Your task to perform on an android device: turn pop-ups on in chrome Image 0: 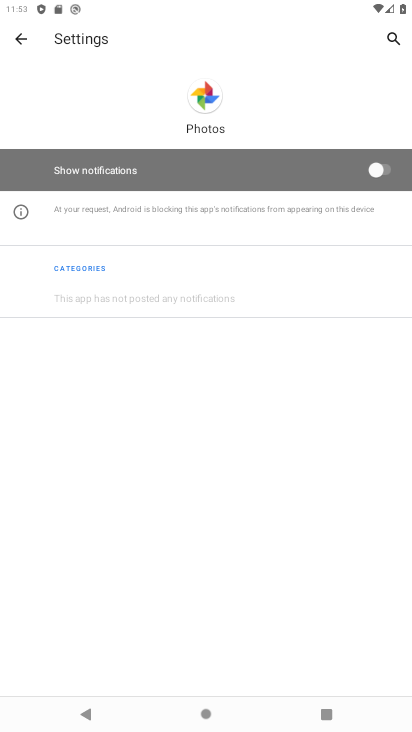
Step 0: press home button
Your task to perform on an android device: turn pop-ups on in chrome Image 1: 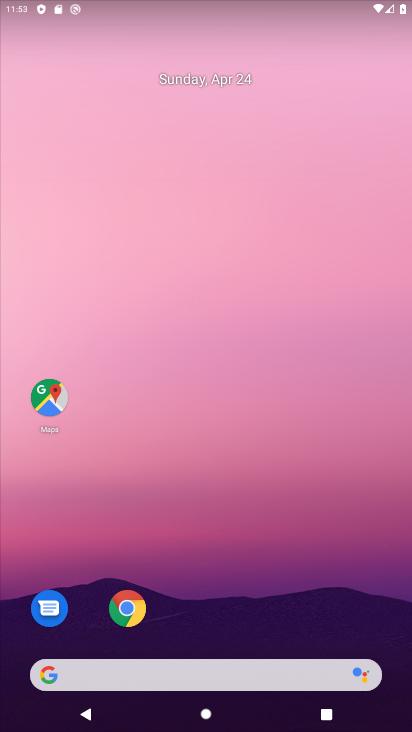
Step 1: click (124, 606)
Your task to perform on an android device: turn pop-ups on in chrome Image 2: 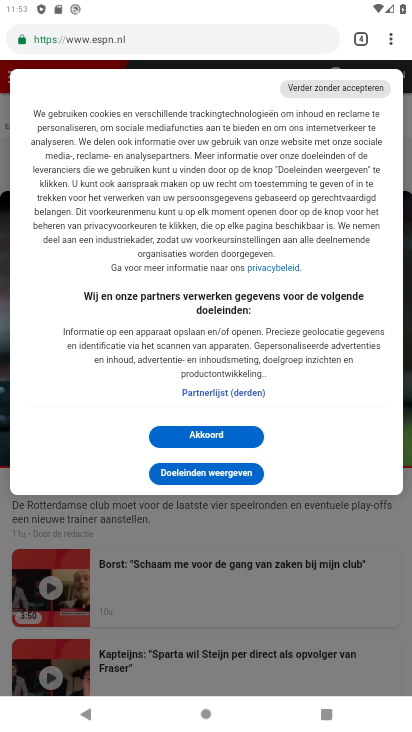
Step 2: drag from (390, 42) to (265, 469)
Your task to perform on an android device: turn pop-ups on in chrome Image 3: 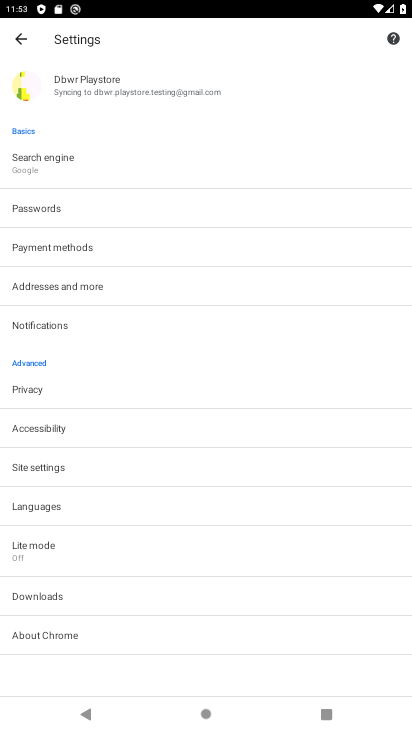
Step 3: click (58, 468)
Your task to perform on an android device: turn pop-ups on in chrome Image 4: 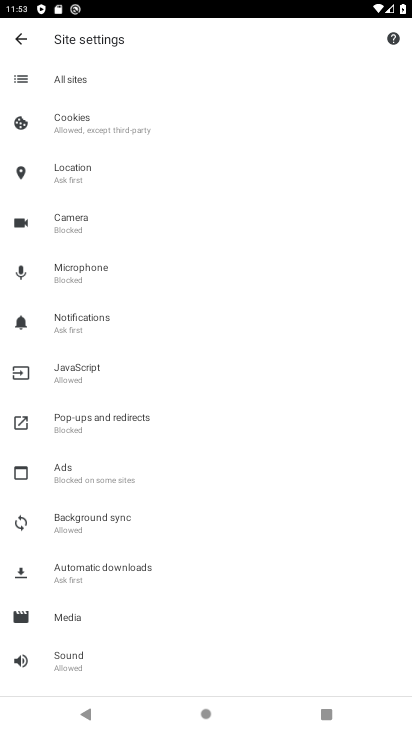
Step 4: click (99, 412)
Your task to perform on an android device: turn pop-ups on in chrome Image 5: 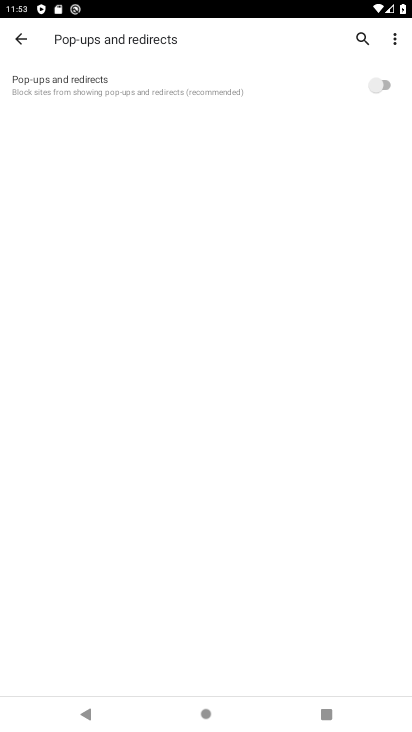
Step 5: click (386, 82)
Your task to perform on an android device: turn pop-ups on in chrome Image 6: 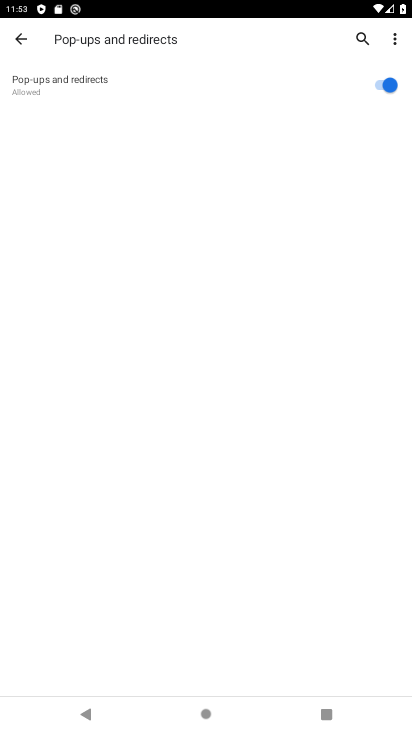
Step 6: task complete